Your task to perform on an android device: Go to wifi settings Image 0: 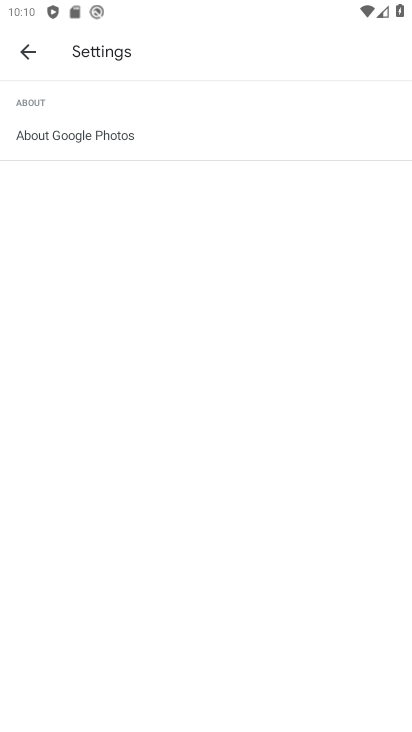
Step 0: press home button
Your task to perform on an android device: Go to wifi settings Image 1: 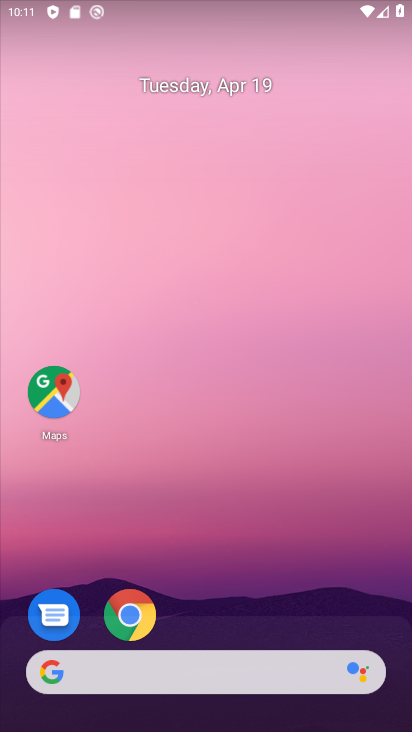
Step 1: drag from (215, 540) to (184, 143)
Your task to perform on an android device: Go to wifi settings Image 2: 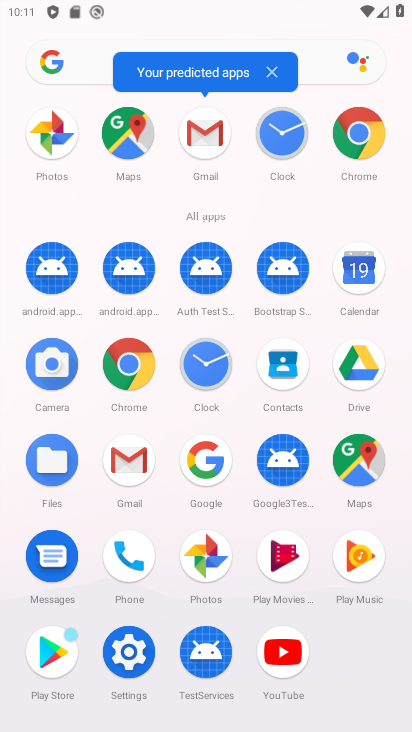
Step 2: click (127, 653)
Your task to perform on an android device: Go to wifi settings Image 3: 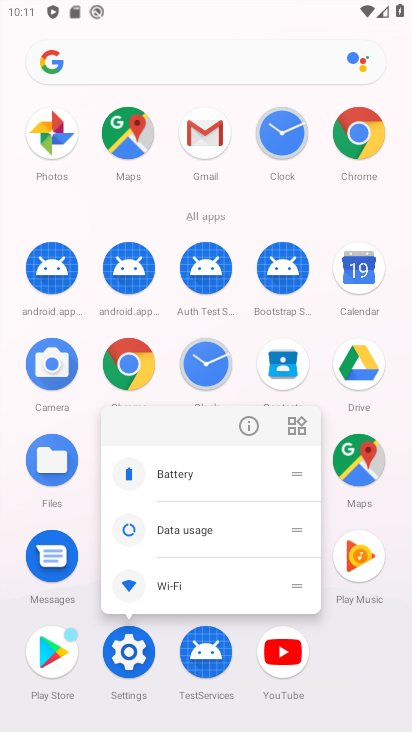
Step 3: click (127, 653)
Your task to perform on an android device: Go to wifi settings Image 4: 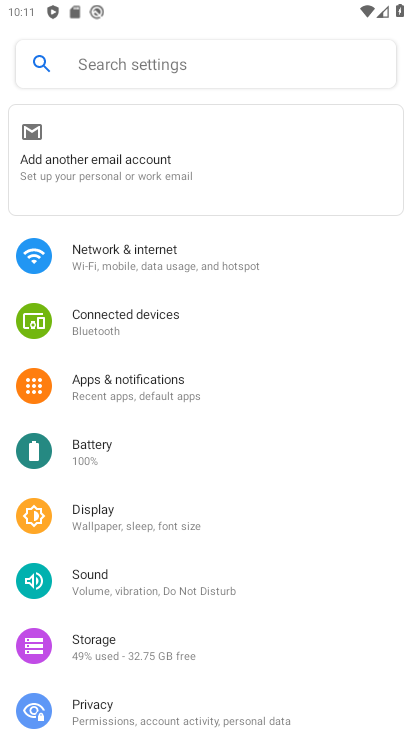
Step 4: click (180, 261)
Your task to perform on an android device: Go to wifi settings Image 5: 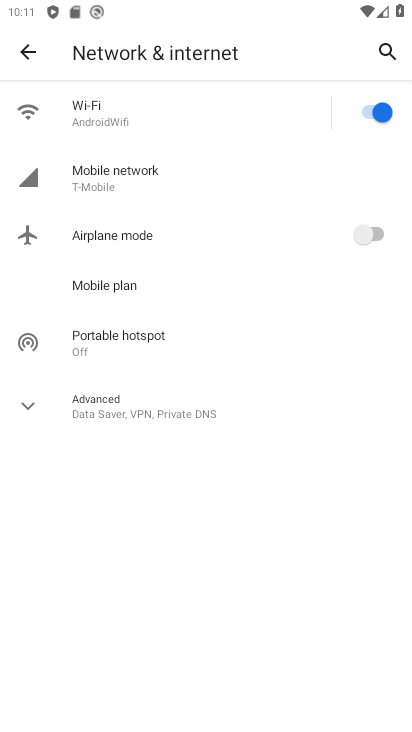
Step 5: click (124, 112)
Your task to perform on an android device: Go to wifi settings Image 6: 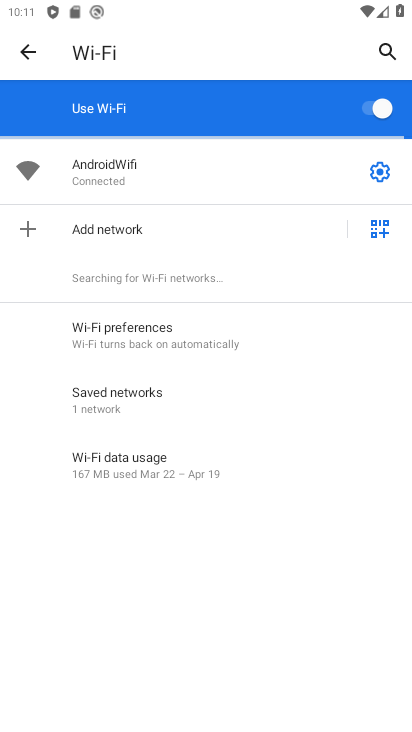
Step 6: click (383, 173)
Your task to perform on an android device: Go to wifi settings Image 7: 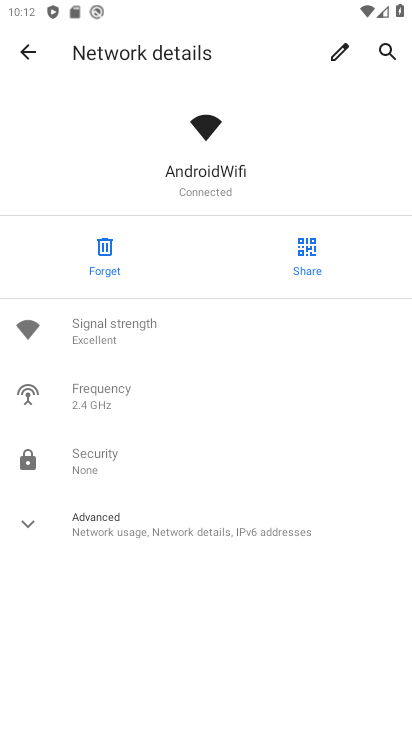
Step 7: task complete